Your task to perform on an android device: install app "Reddit" Image 0: 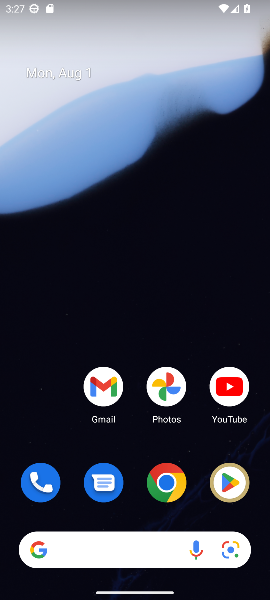
Step 0: press home button
Your task to perform on an android device: install app "Reddit" Image 1: 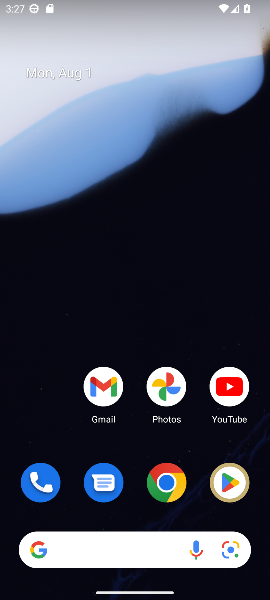
Step 1: click (233, 483)
Your task to perform on an android device: install app "Reddit" Image 2: 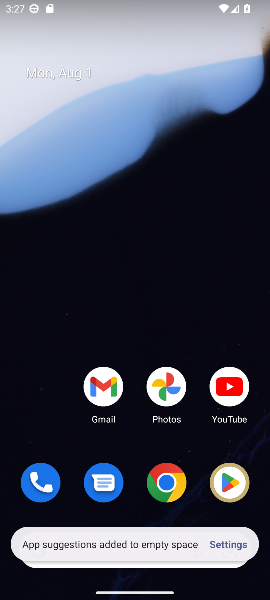
Step 2: click (226, 484)
Your task to perform on an android device: install app "Reddit" Image 3: 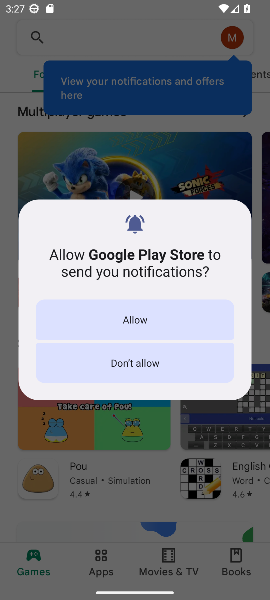
Step 3: click (155, 368)
Your task to perform on an android device: install app "Reddit" Image 4: 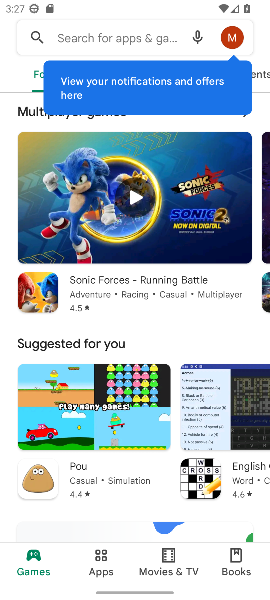
Step 4: click (135, 36)
Your task to perform on an android device: install app "Reddit" Image 5: 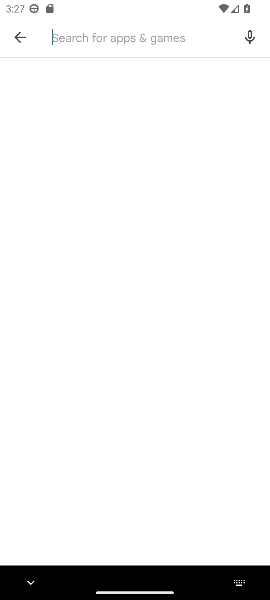
Step 5: type "Reddit"
Your task to perform on an android device: install app "Reddit" Image 6: 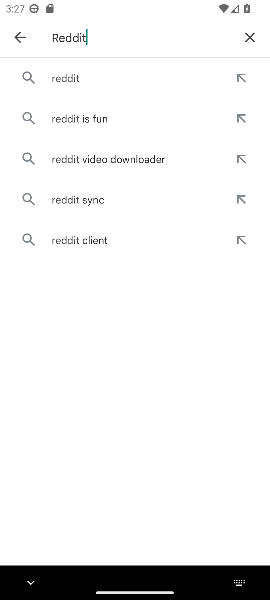
Step 6: click (70, 76)
Your task to perform on an android device: install app "Reddit" Image 7: 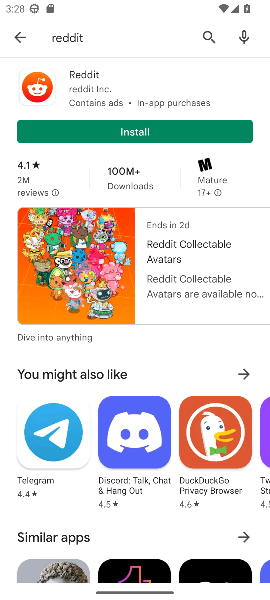
Step 7: click (116, 132)
Your task to perform on an android device: install app "Reddit" Image 8: 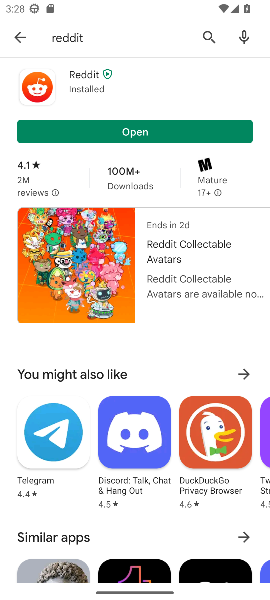
Step 8: task complete